Your task to perform on an android device: Search for Italian restaurants on Maps Image 0: 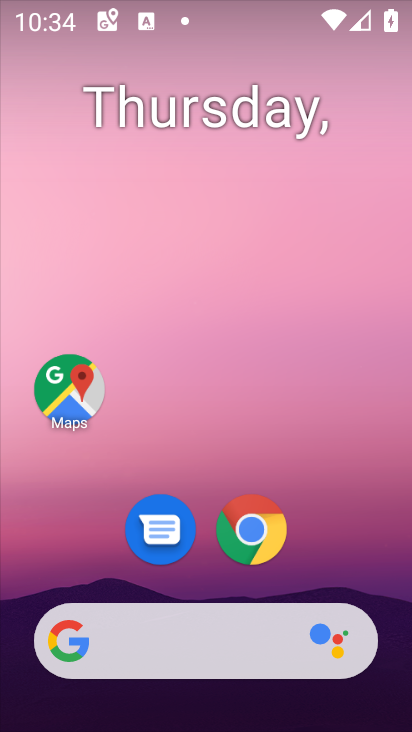
Step 0: drag from (250, 583) to (283, 93)
Your task to perform on an android device: Search for Italian restaurants on Maps Image 1: 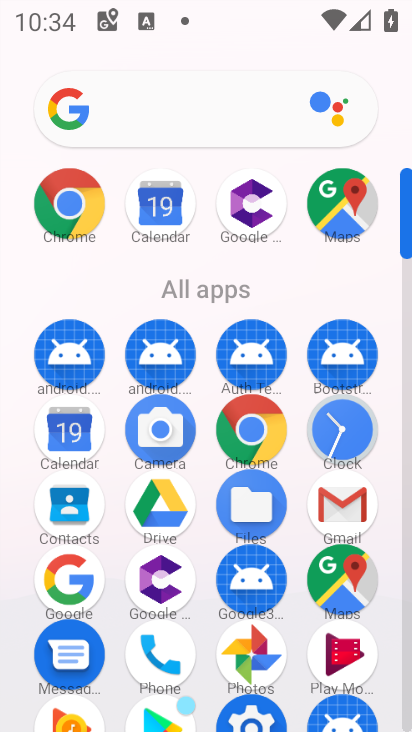
Step 1: click (322, 219)
Your task to perform on an android device: Search for Italian restaurants on Maps Image 2: 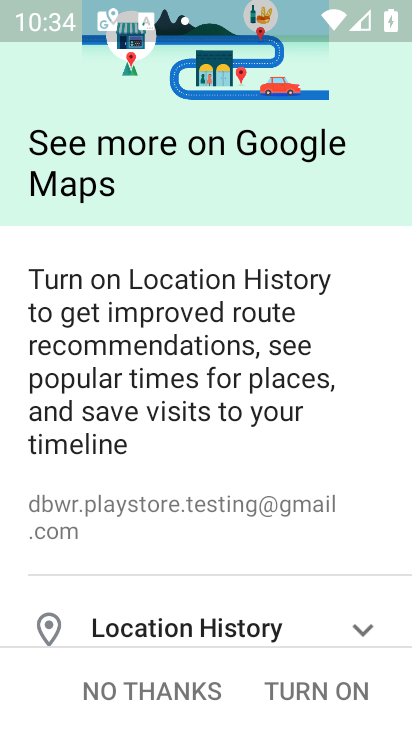
Step 2: click (335, 702)
Your task to perform on an android device: Search for Italian restaurants on Maps Image 3: 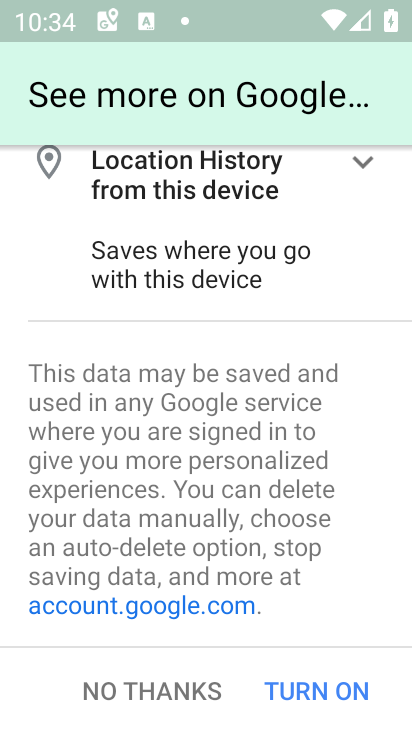
Step 3: click (346, 697)
Your task to perform on an android device: Search for Italian restaurants on Maps Image 4: 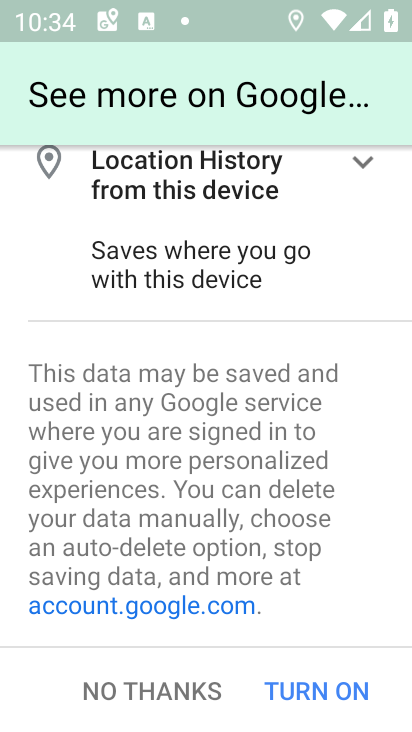
Step 4: click (343, 685)
Your task to perform on an android device: Search for Italian restaurants on Maps Image 5: 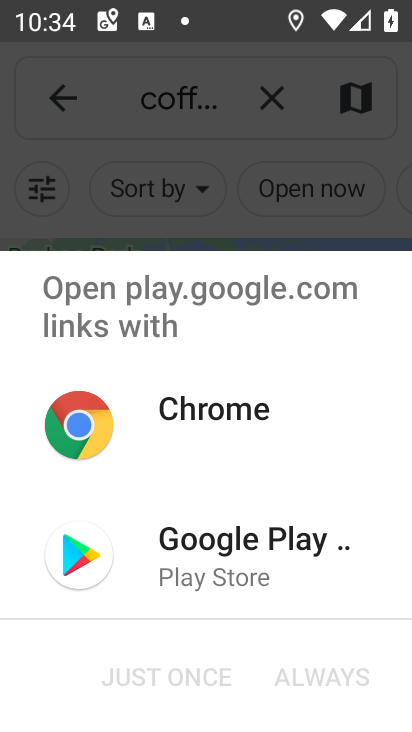
Step 5: click (237, 563)
Your task to perform on an android device: Search for Italian restaurants on Maps Image 6: 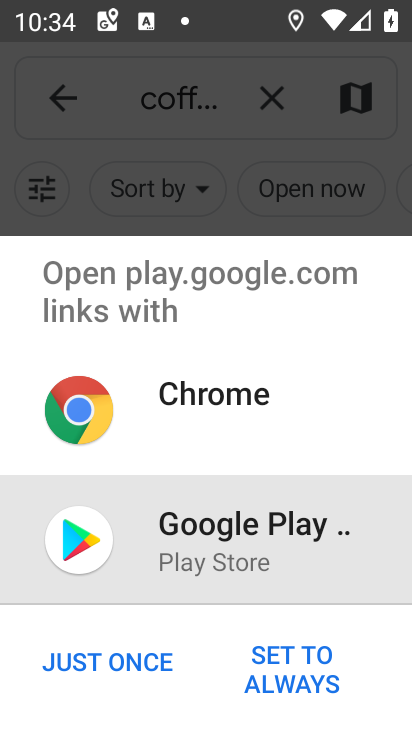
Step 6: click (358, 194)
Your task to perform on an android device: Search for Italian restaurants on Maps Image 7: 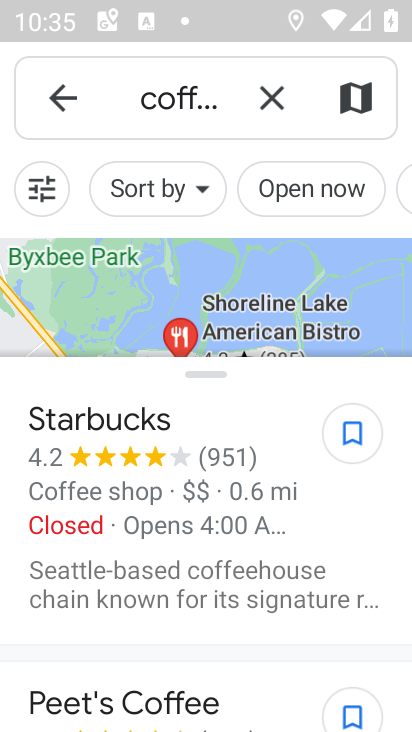
Step 7: click (284, 105)
Your task to perform on an android device: Search for Italian restaurants on Maps Image 8: 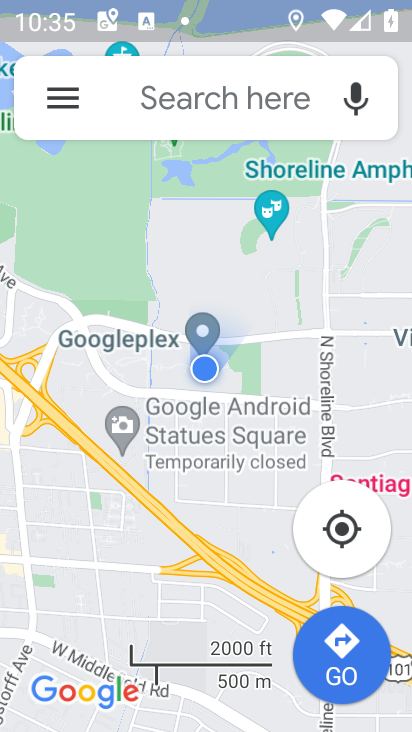
Step 8: click (284, 105)
Your task to perform on an android device: Search for Italian restaurants on Maps Image 9: 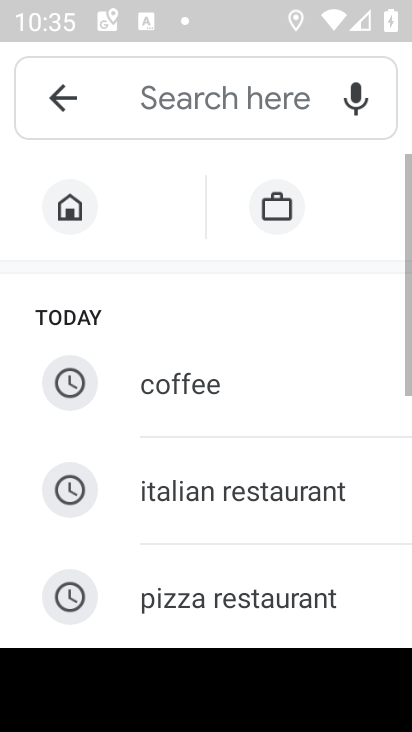
Step 9: click (275, 498)
Your task to perform on an android device: Search for Italian restaurants on Maps Image 10: 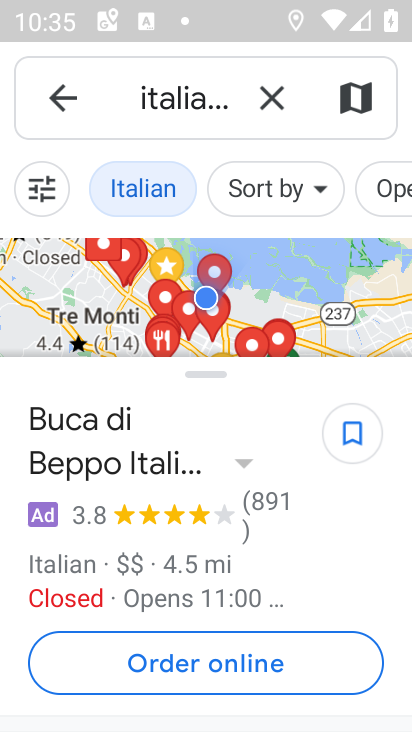
Step 10: task complete